Your task to perform on an android device: read, delete, or share a saved page in the chrome app Image 0: 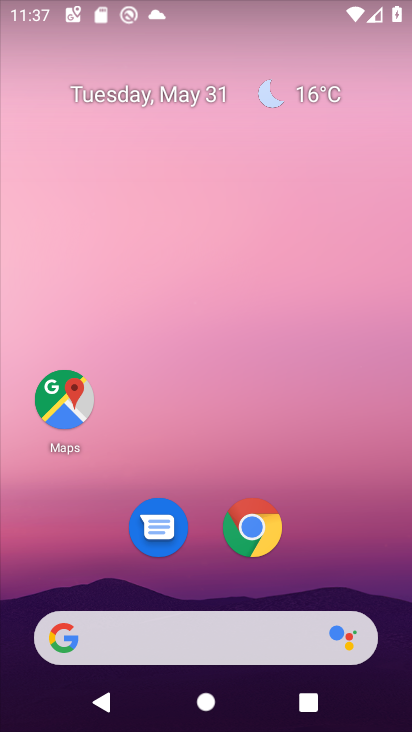
Step 0: click (258, 532)
Your task to perform on an android device: read, delete, or share a saved page in the chrome app Image 1: 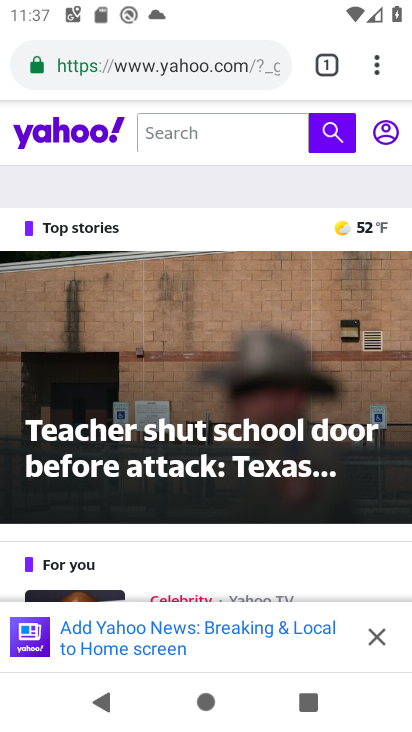
Step 1: click (375, 66)
Your task to perform on an android device: read, delete, or share a saved page in the chrome app Image 2: 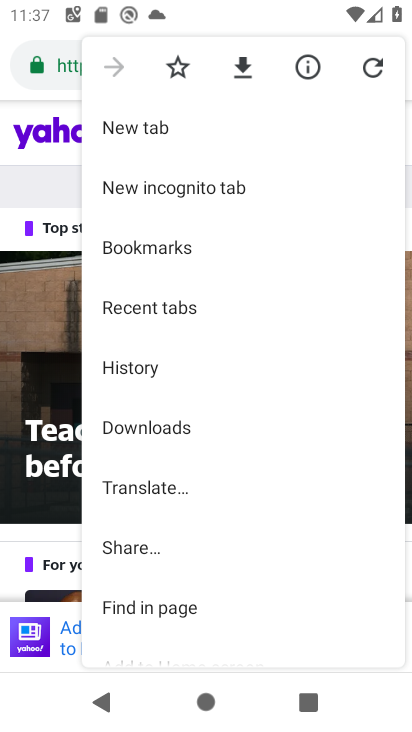
Step 2: click (156, 421)
Your task to perform on an android device: read, delete, or share a saved page in the chrome app Image 3: 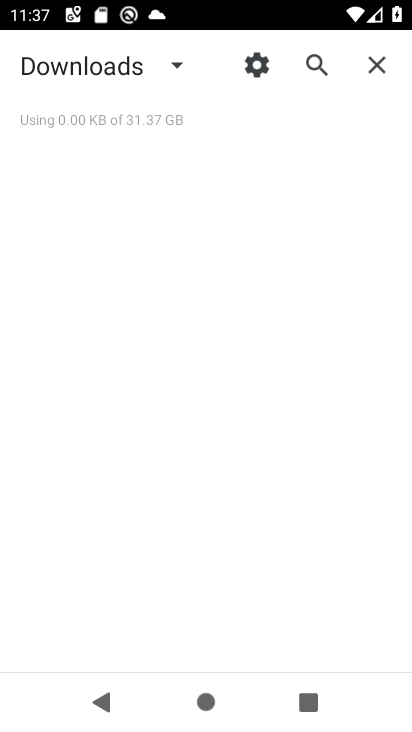
Step 3: click (173, 67)
Your task to perform on an android device: read, delete, or share a saved page in the chrome app Image 4: 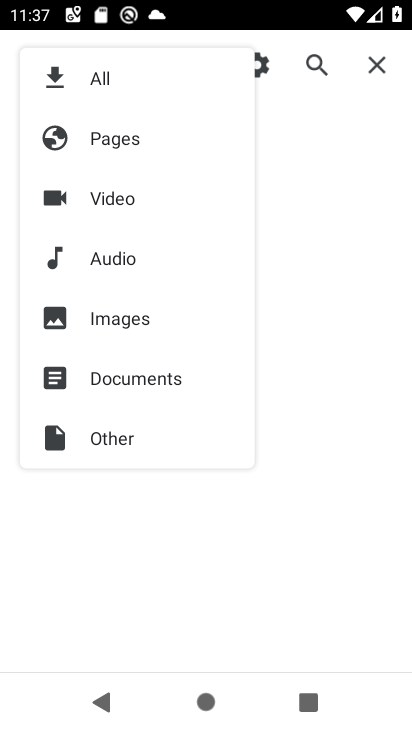
Step 4: click (109, 149)
Your task to perform on an android device: read, delete, or share a saved page in the chrome app Image 5: 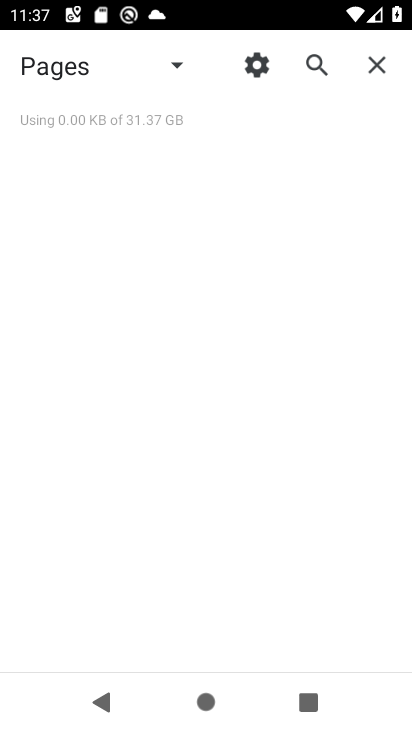
Step 5: task complete